Your task to perform on an android device: Open location settings Image 0: 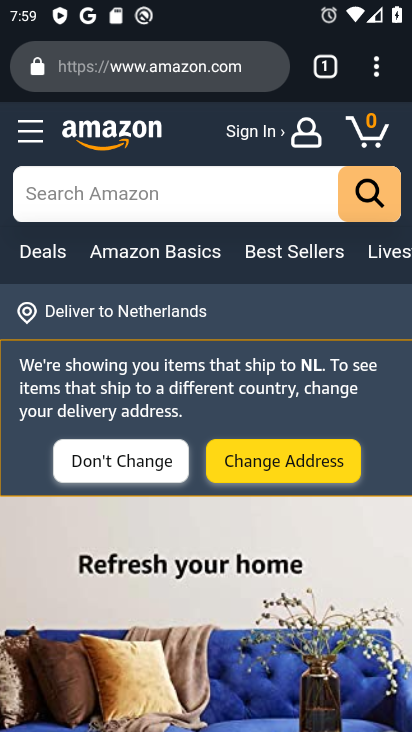
Step 0: press home button
Your task to perform on an android device: Open location settings Image 1: 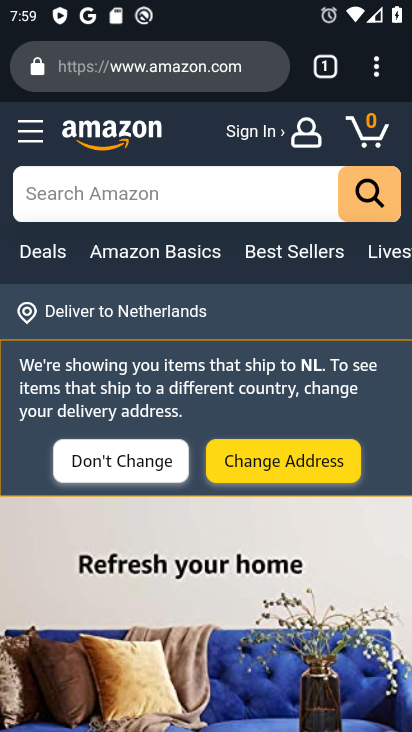
Step 1: press home button
Your task to perform on an android device: Open location settings Image 2: 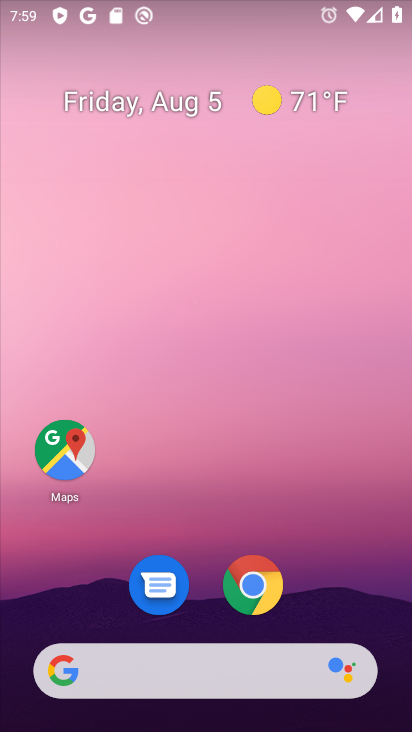
Step 2: drag from (312, 585) to (304, 32)
Your task to perform on an android device: Open location settings Image 3: 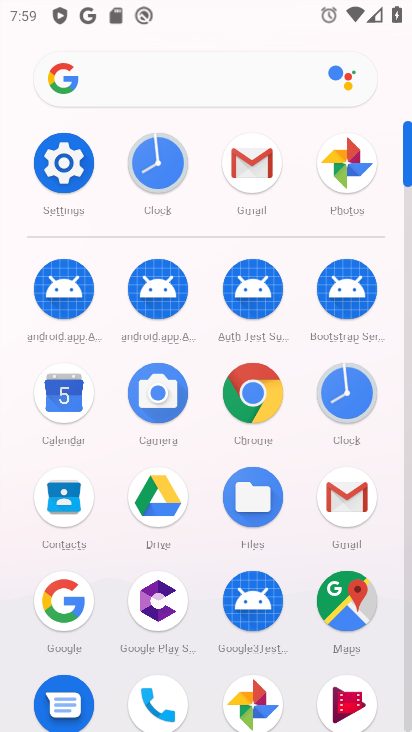
Step 3: click (77, 157)
Your task to perform on an android device: Open location settings Image 4: 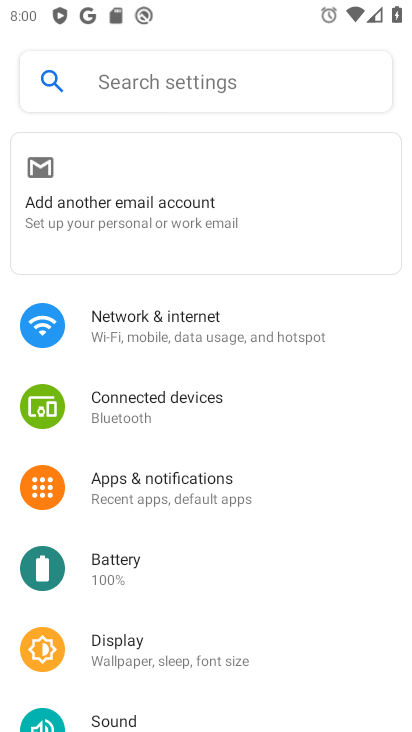
Step 4: drag from (258, 585) to (313, 98)
Your task to perform on an android device: Open location settings Image 5: 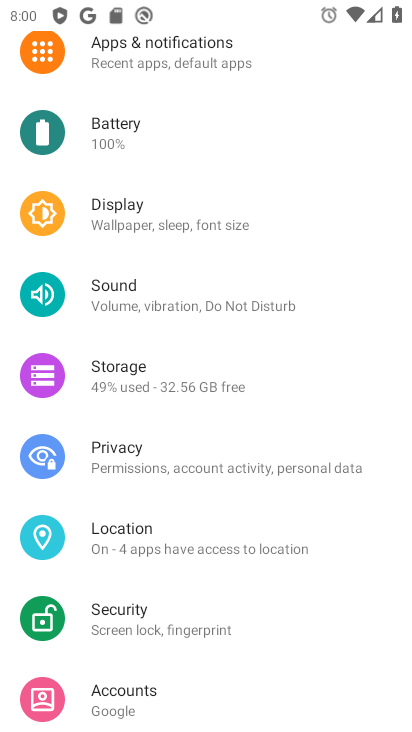
Step 5: click (211, 536)
Your task to perform on an android device: Open location settings Image 6: 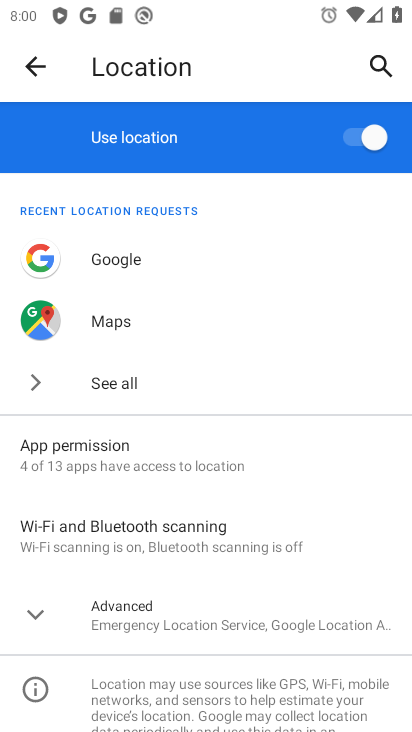
Step 6: task complete